Your task to perform on an android device: Go to location settings Image 0: 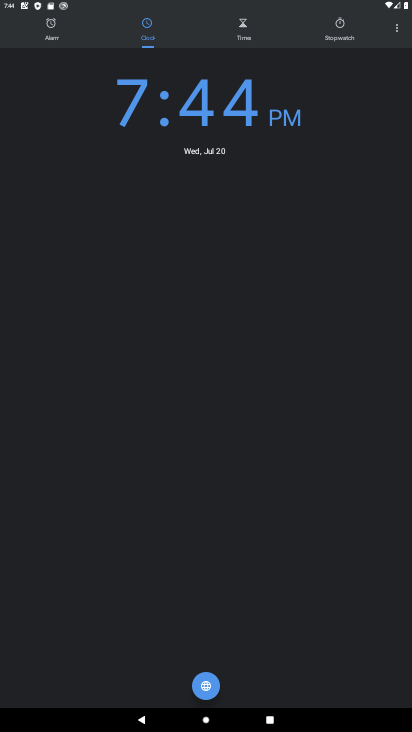
Step 0: press home button
Your task to perform on an android device: Go to location settings Image 1: 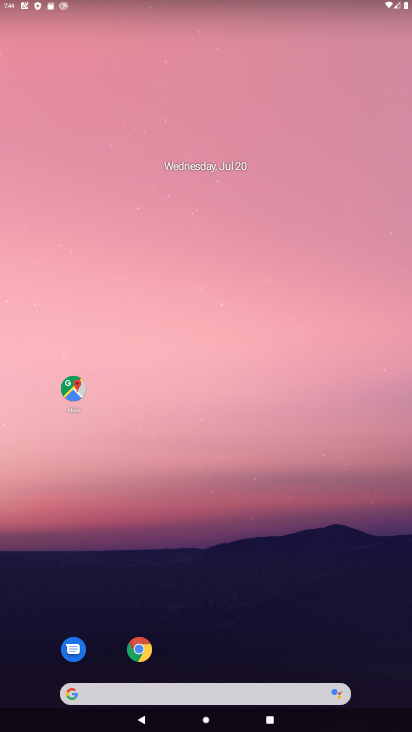
Step 1: drag from (258, 660) to (266, 112)
Your task to perform on an android device: Go to location settings Image 2: 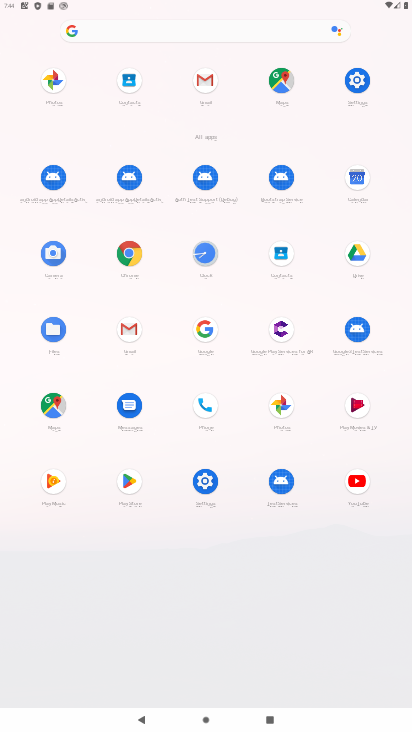
Step 2: click (356, 93)
Your task to perform on an android device: Go to location settings Image 3: 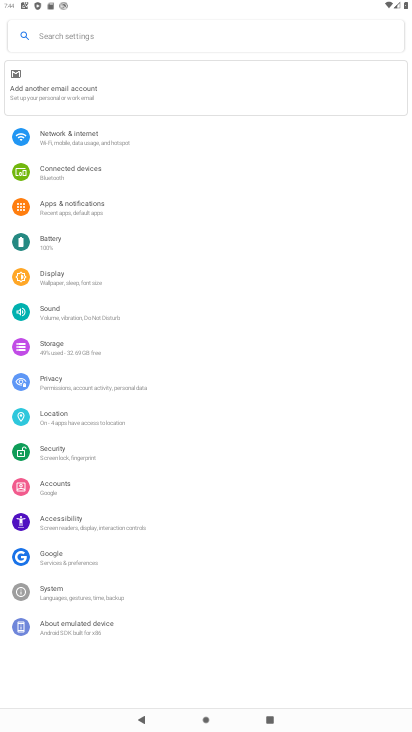
Step 3: click (83, 408)
Your task to perform on an android device: Go to location settings Image 4: 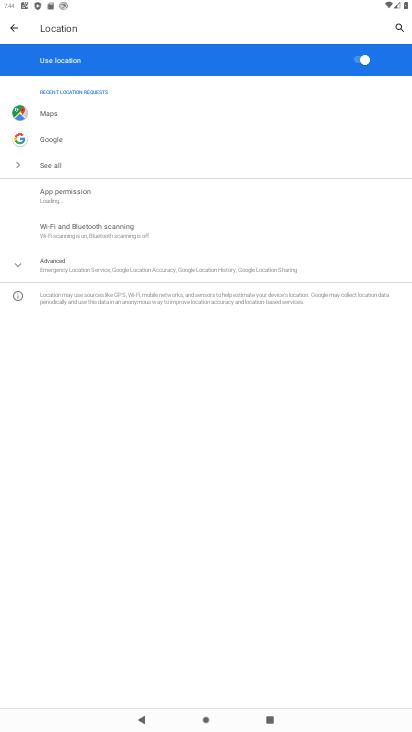
Step 4: click (363, 75)
Your task to perform on an android device: Go to location settings Image 5: 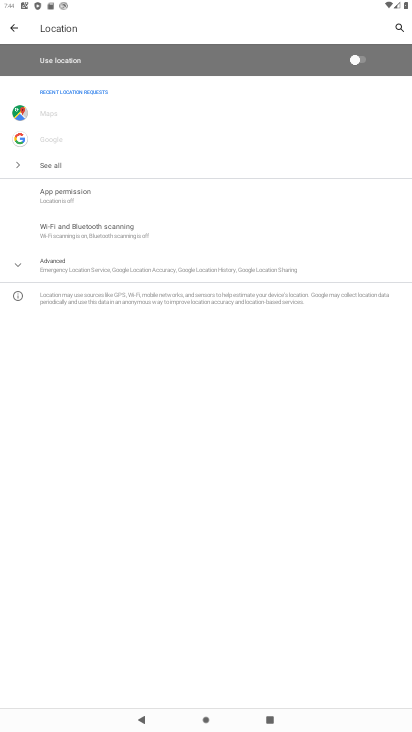
Step 5: task complete